Your task to perform on an android device: clear all cookies in the chrome app Image 0: 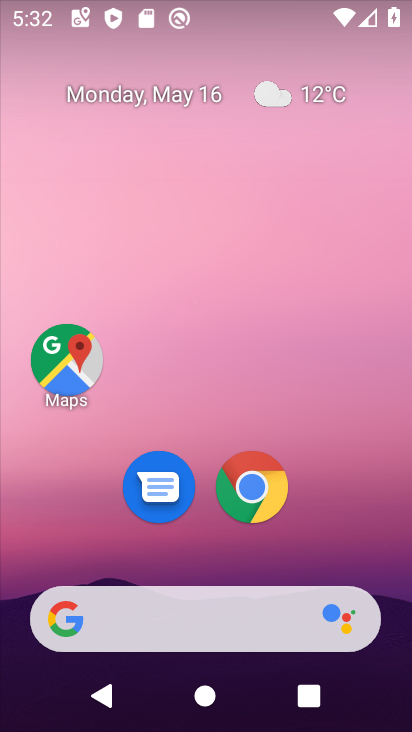
Step 0: click (250, 476)
Your task to perform on an android device: clear all cookies in the chrome app Image 1: 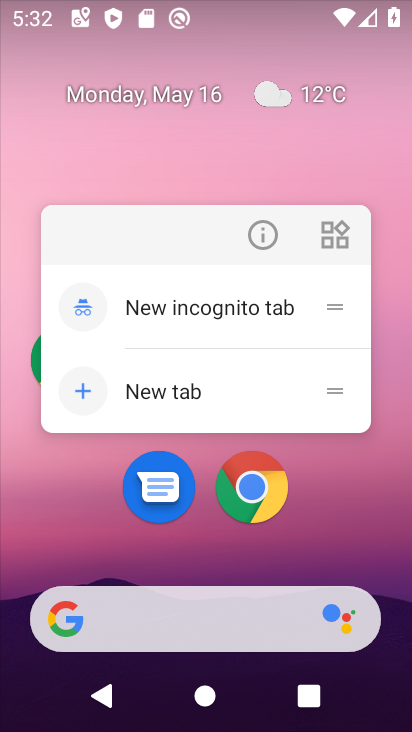
Step 1: click (249, 489)
Your task to perform on an android device: clear all cookies in the chrome app Image 2: 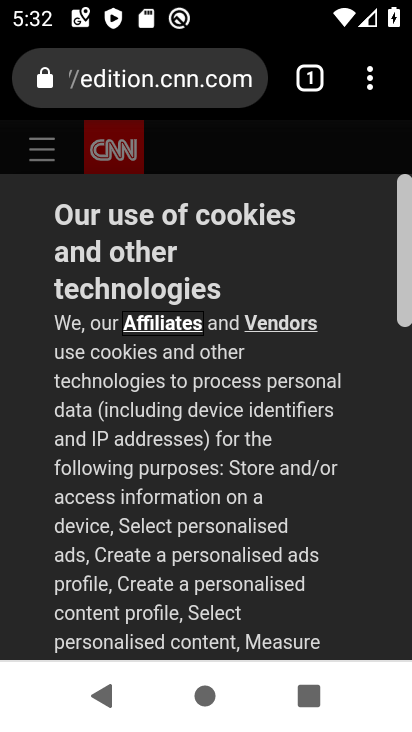
Step 2: drag from (376, 85) to (130, 132)
Your task to perform on an android device: clear all cookies in the chrome app Image 3: 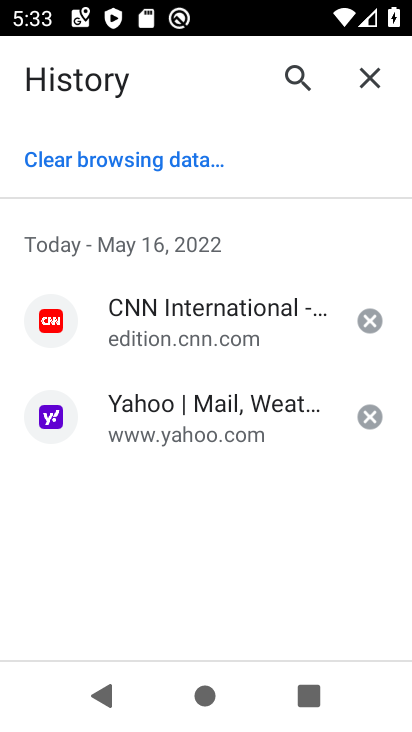
Step 3: click (195, 158)
Your task to perform on an android device: clear all cookies in the chrome app Image 4: 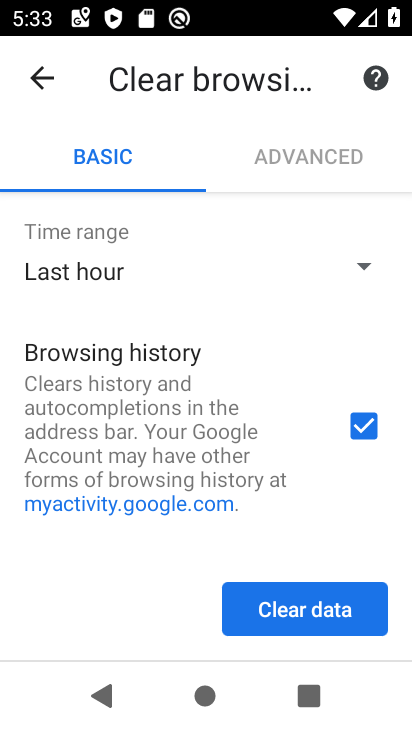
Step 4: drag from (131, 569) to (159, 138)
Your task to perform on an android device: clear all cookies in the chrome app Image 5: 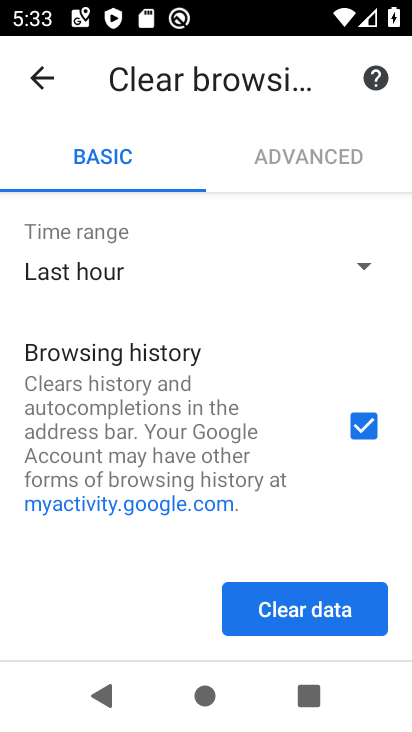
Step 5: drag from (101, 528) to (221, 181)
Your task to perform on an android device: clear all cookies in the chrome app Image 6: 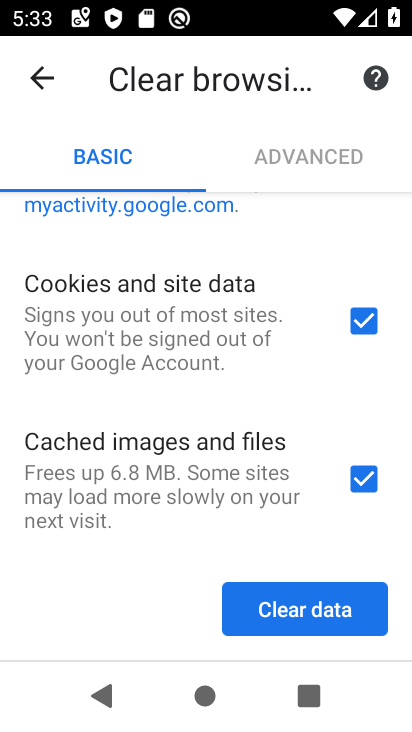
Step 6: drag from (298, 287) to (300, 714)
Your task to perform on an android device: clear all cookies in the chrome app Image 7: 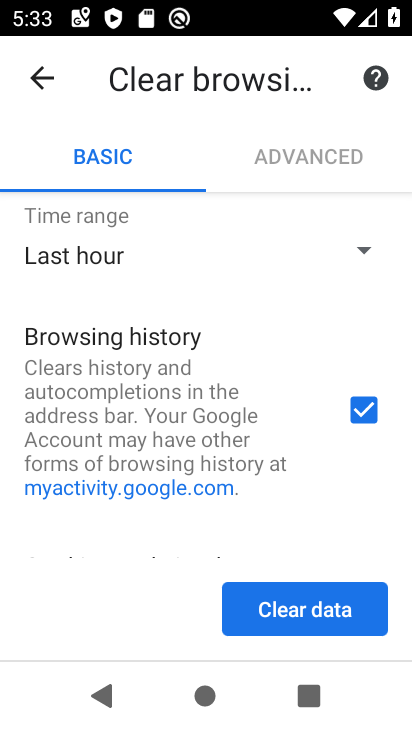
Step 7: click (303, 253)
Your task to perform on an android device: clear all cookies in the chrome app Image 8: 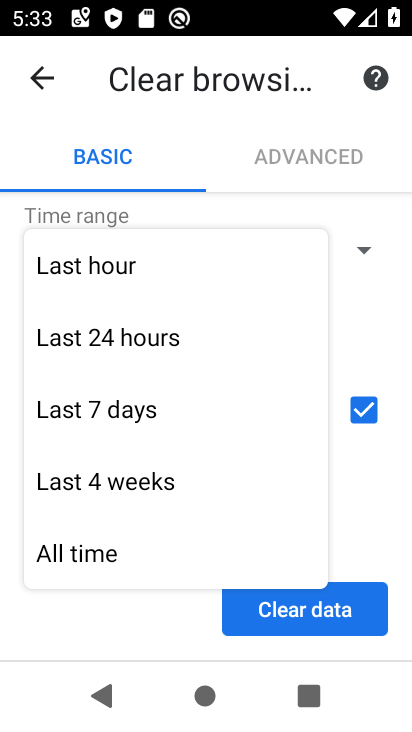
Step 8: click (91, 569)
Your task to perform on an android device: clear all cookies in the chrome app Image 9: 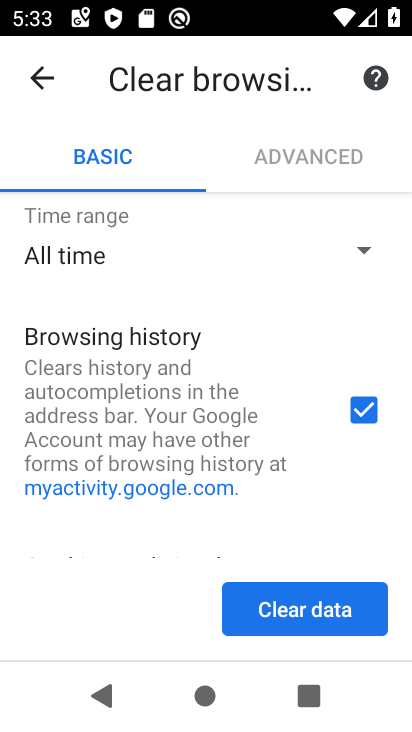
Step 9: click (345, 603)
Your task to perform on an android device: clear all cookies in the chrome app Image 10: 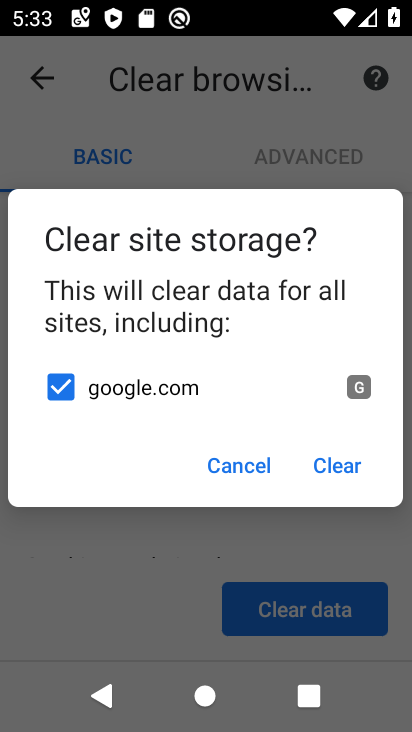
Step 10: click (340, 468)
Your task to perform on an android device: clear all cookies in the chrome app Image 11: 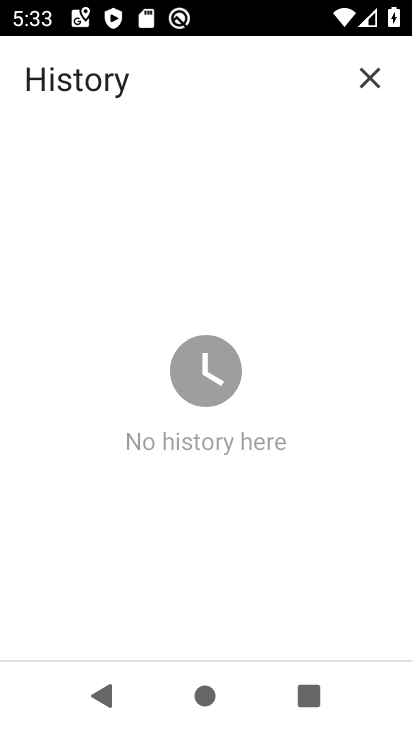
Step 11: press home button
Your task to perform on an android device: clear all cookies in the chrome app Image 12: 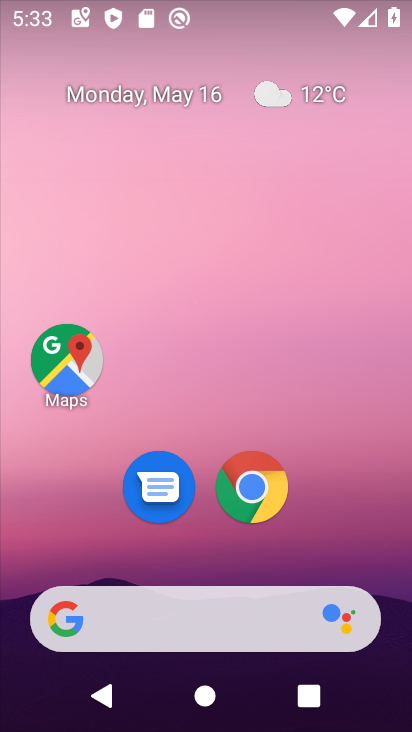
Step 12: click (250, 484)
Your task to perform on an android device: clear all cookies in the chrome app Image 13: 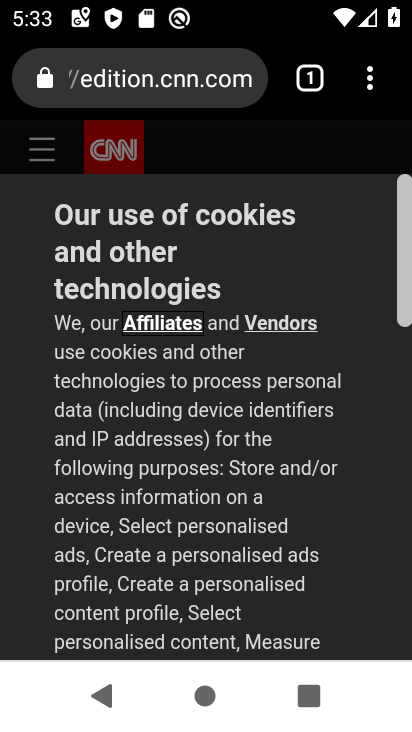
Step 13: task complete